Your task to perform on an android device: Add "logitech g903" to the cart on amazon, then select checkout. Image 0: 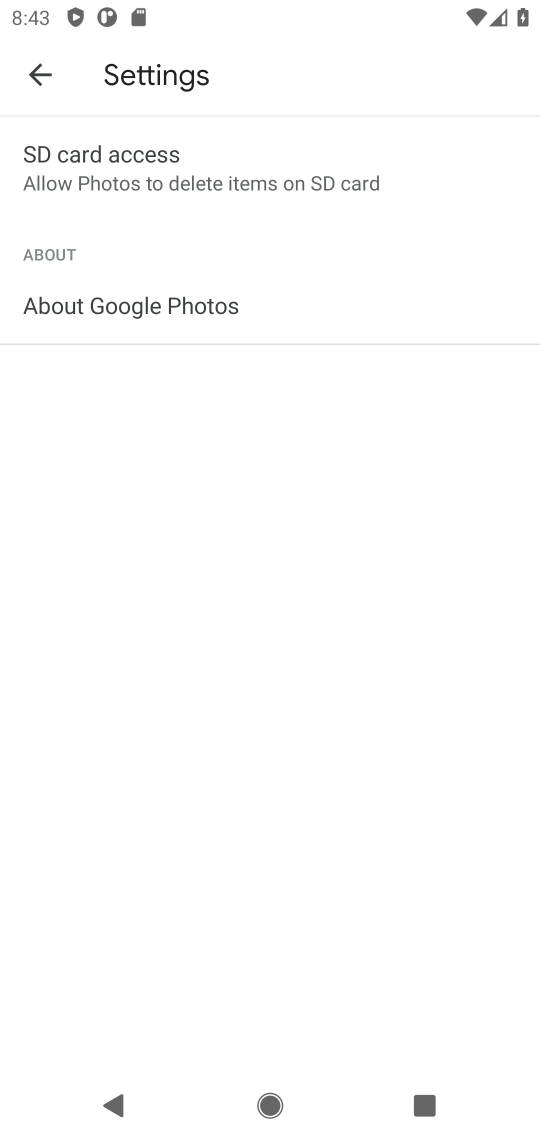
Step 0: task complete